Your task to perform on an android device: snooze an email in the gmail app Image 0: 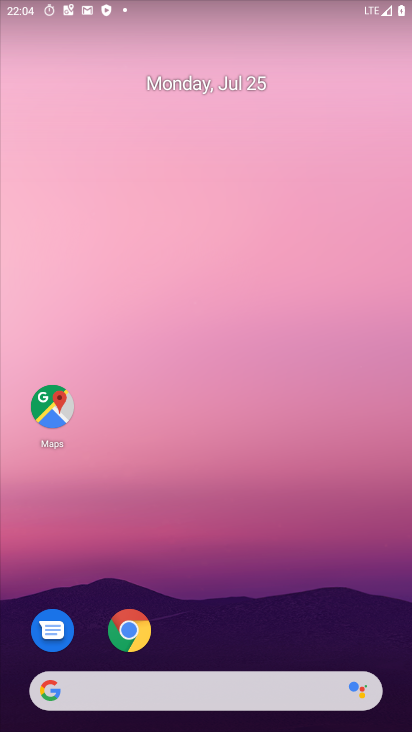
Step 0: press home button
Your task to perform on an android device: snooze an email in the gmail app Image 1: 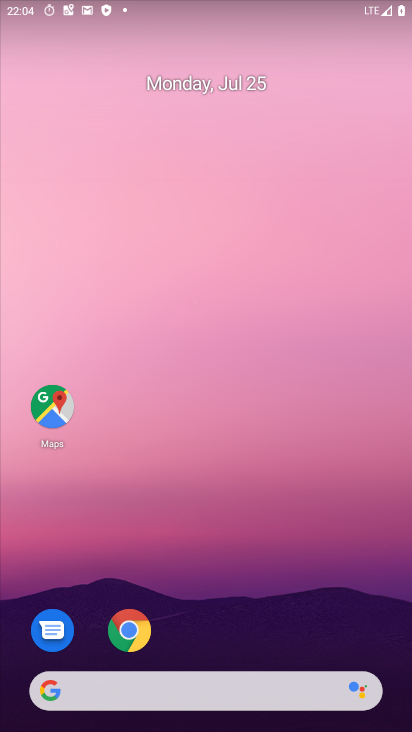
Step 1: drag from (274, 645) to (288, 209)
Your task to perform on an android device: snooze an email in the gmail app Image 2: 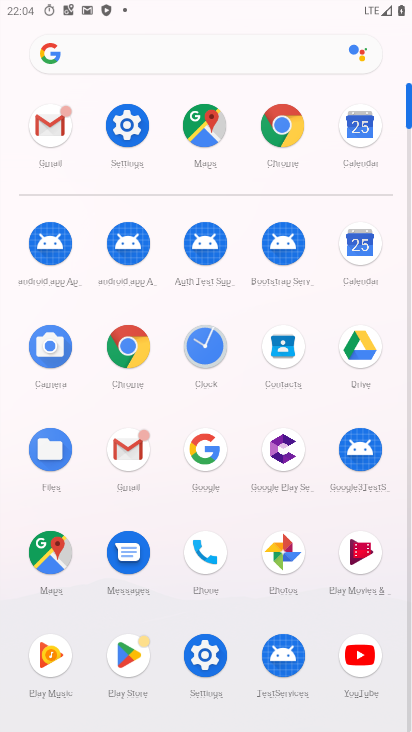
Step 2: click (47, 123)
Your task to perform on an android device: snooze an email in the gmail app Image 3: 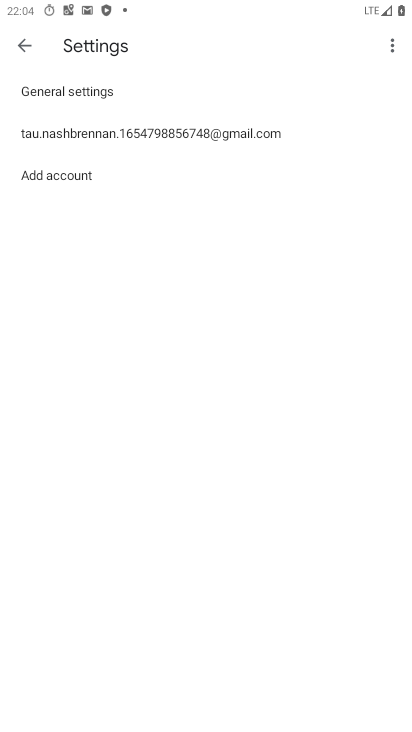
Step 3: click (19, 44)
Your task to perform on an android device: snooze an email in the gmail app Image 4: 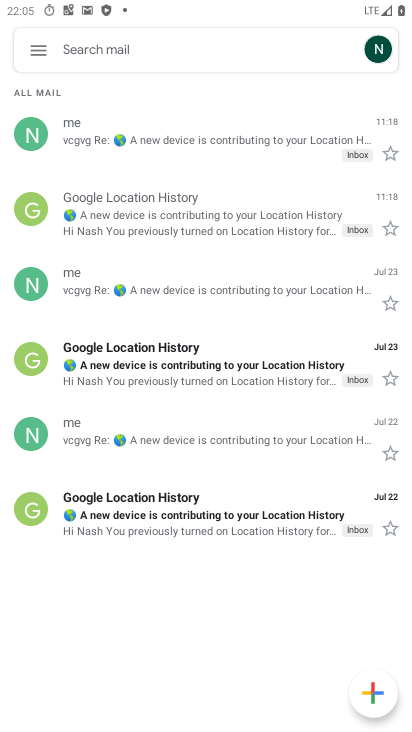
Step 4: click (161, 145)
Your task to perform on an android device: snooze an email in the gmail app Image 5: 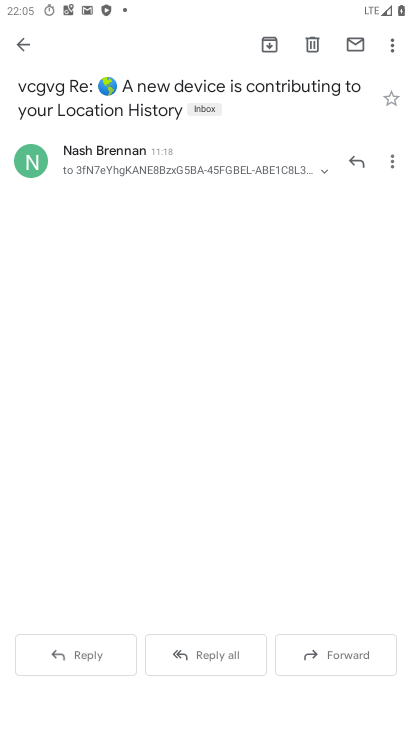
Step 5: click (392, 42)
Your task to perform on an android device: snooze an email in the gmail app Image 6: 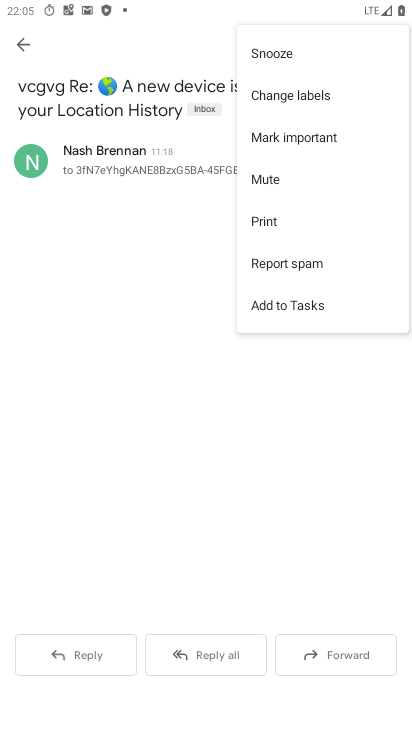
Step 6: click (277, 52)
Your task to perform on an android device: snooze an email in the gmail app Image 7: 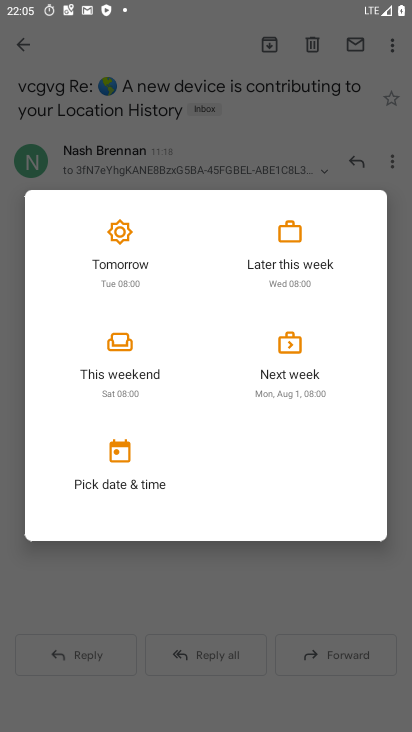
Step 7: click (122, 356)
Your task to perform on an android device: snooze an email in the gmail app Image 8: 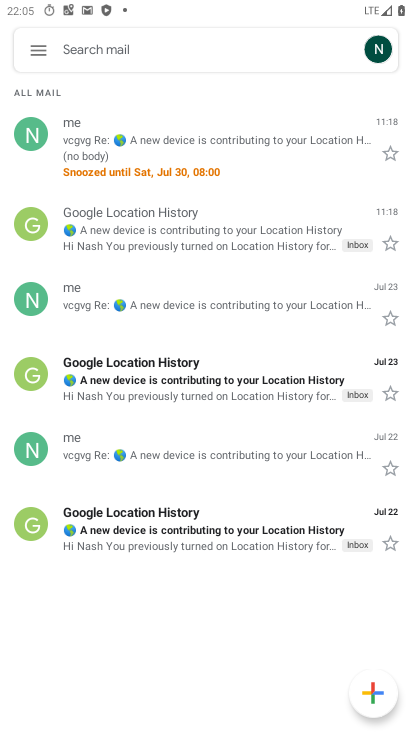
Step 8: task complete